Your task to perform on an android device: View the shopping cart on amazon. Add "razer huntsman" to the cart on amazon Image 0: 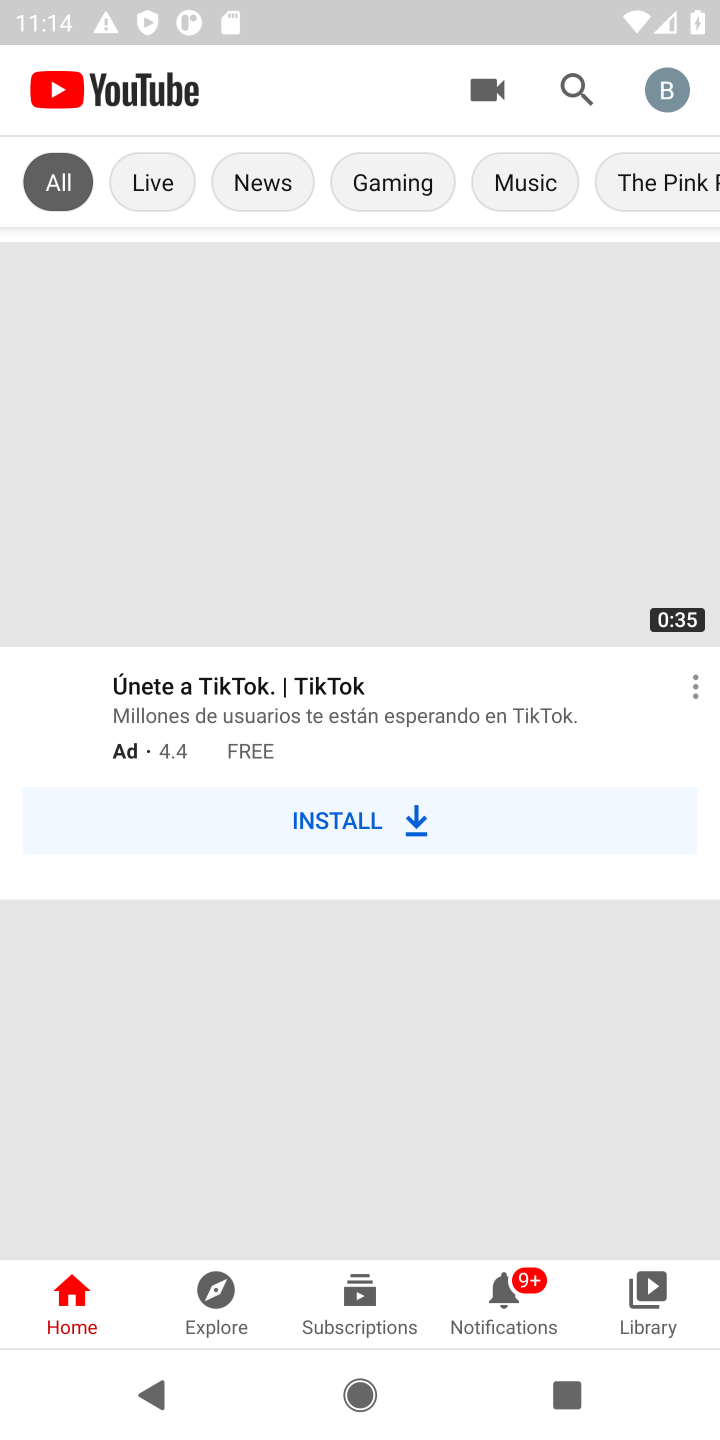
Step 0: press home button
Your task to perform on an android device: View the shopping cart on amazon. Add "razer huntsman" to the cart on amazon Image 1: 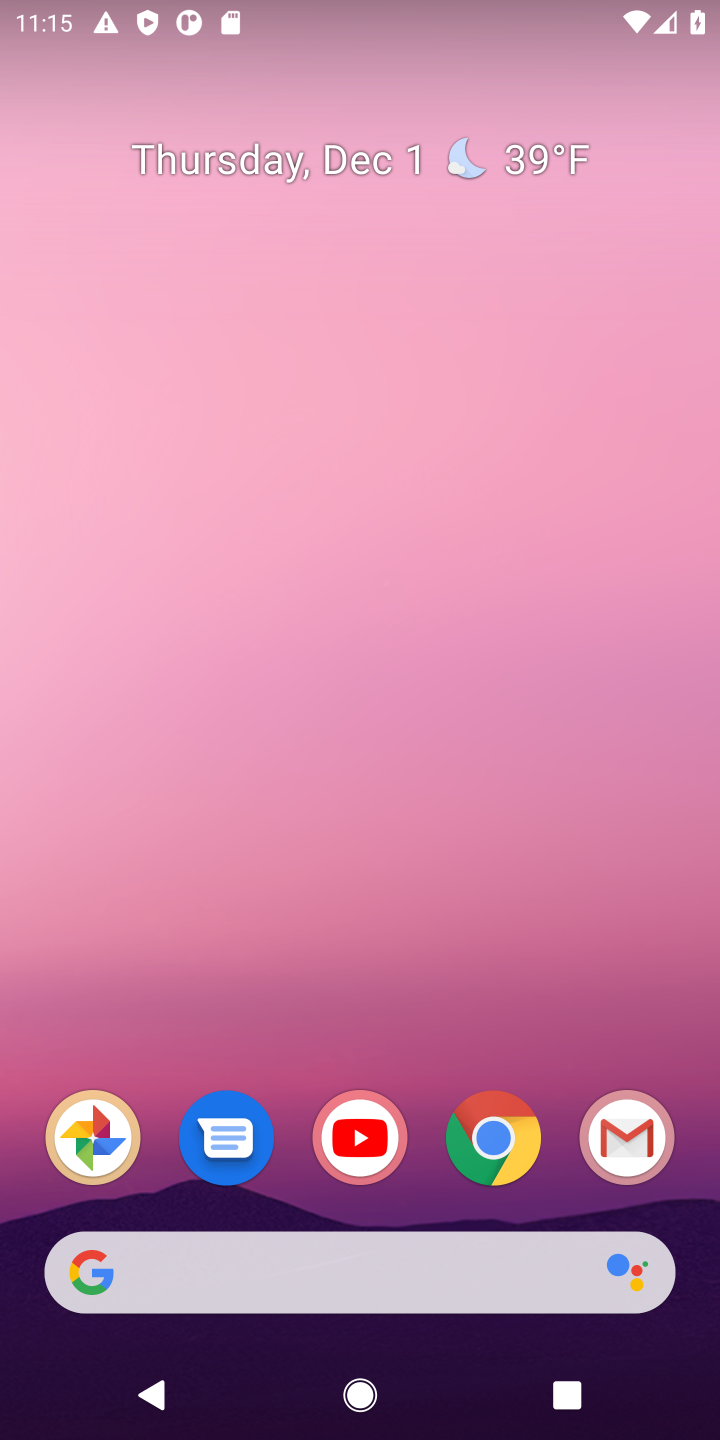
Step 1: drag from (430, 1193) to (483, 422)
Your task to perform on an android device: View the shopping cart on amazon. Add "razer huntsman" to the cart on amazon Image 2: 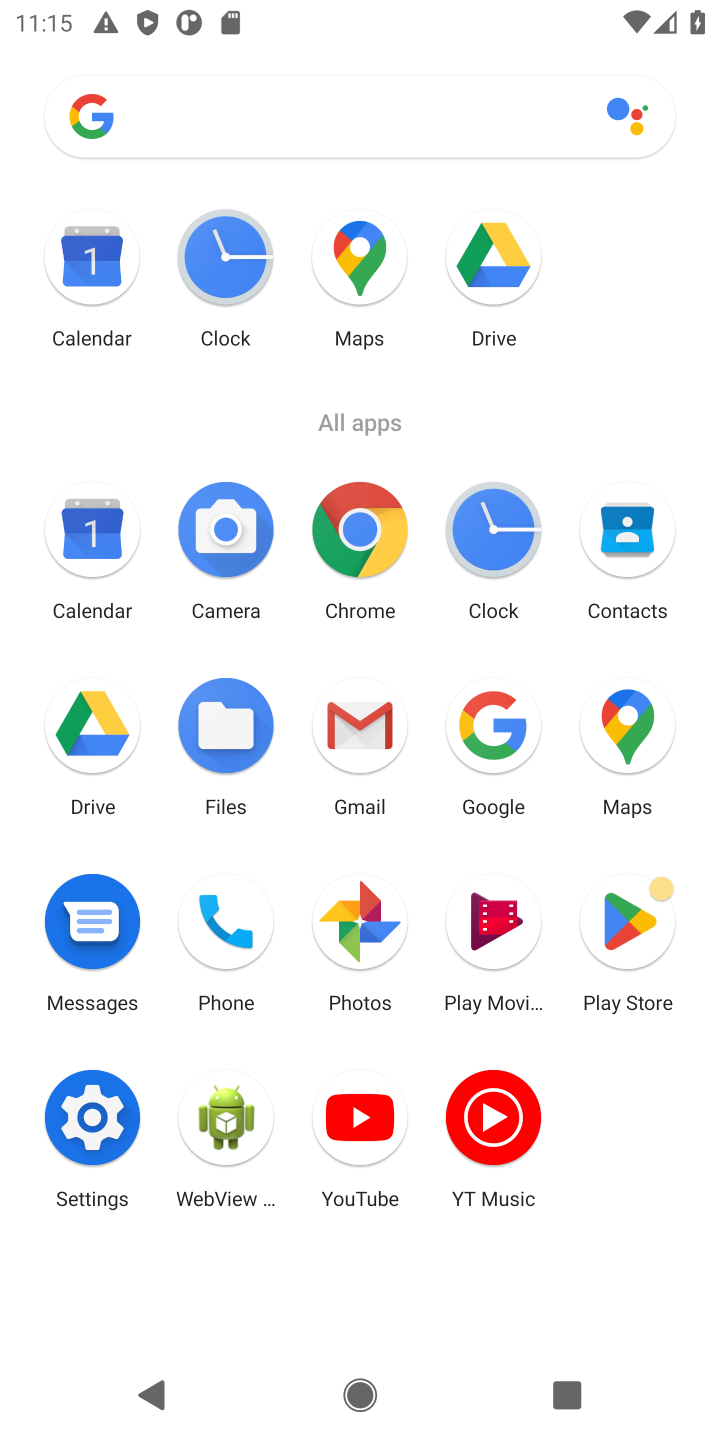
Step 2: click (503, 769)
Your task to perform on an android device: View the shopping cart on amazon. Add "razer huntsman" to the cart on amazon Image 3: 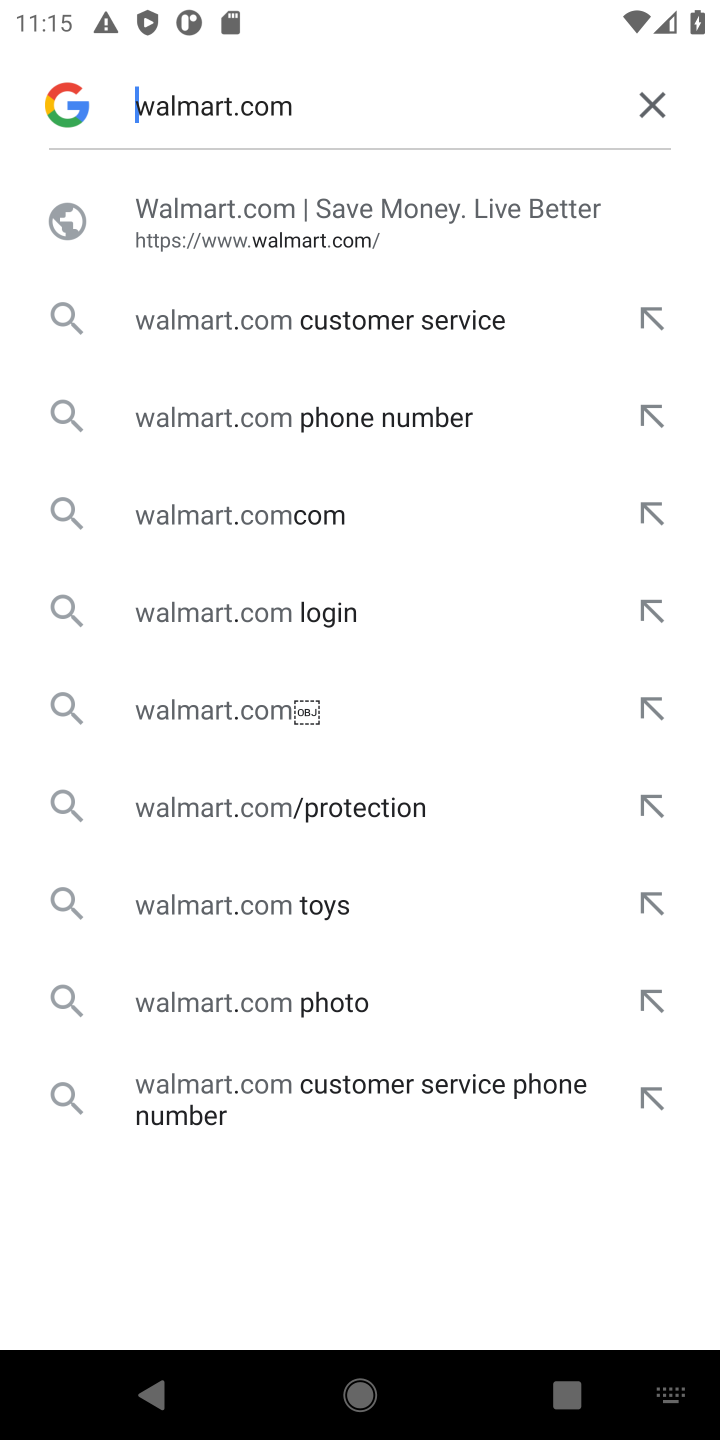
Step 3: click (655, 117)
Your task to perform on an android device: View the shopping cart on amazon. Add "razer huntsman" to the cart on amazon Image 4: 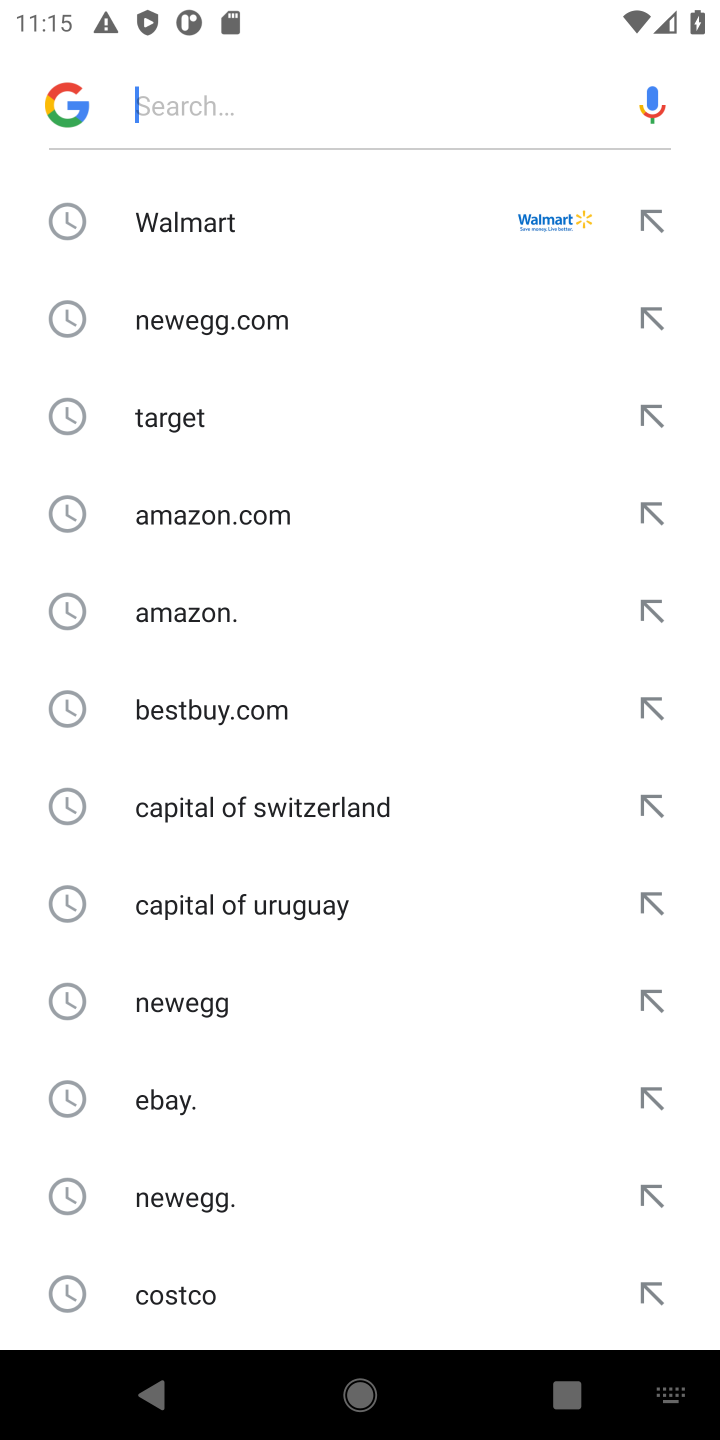
Step 4: type "amazon"
Your task to perform on an android device: View the shopping cart on amazon. Add "razer huntsman" to the cart on amazon Image 5: 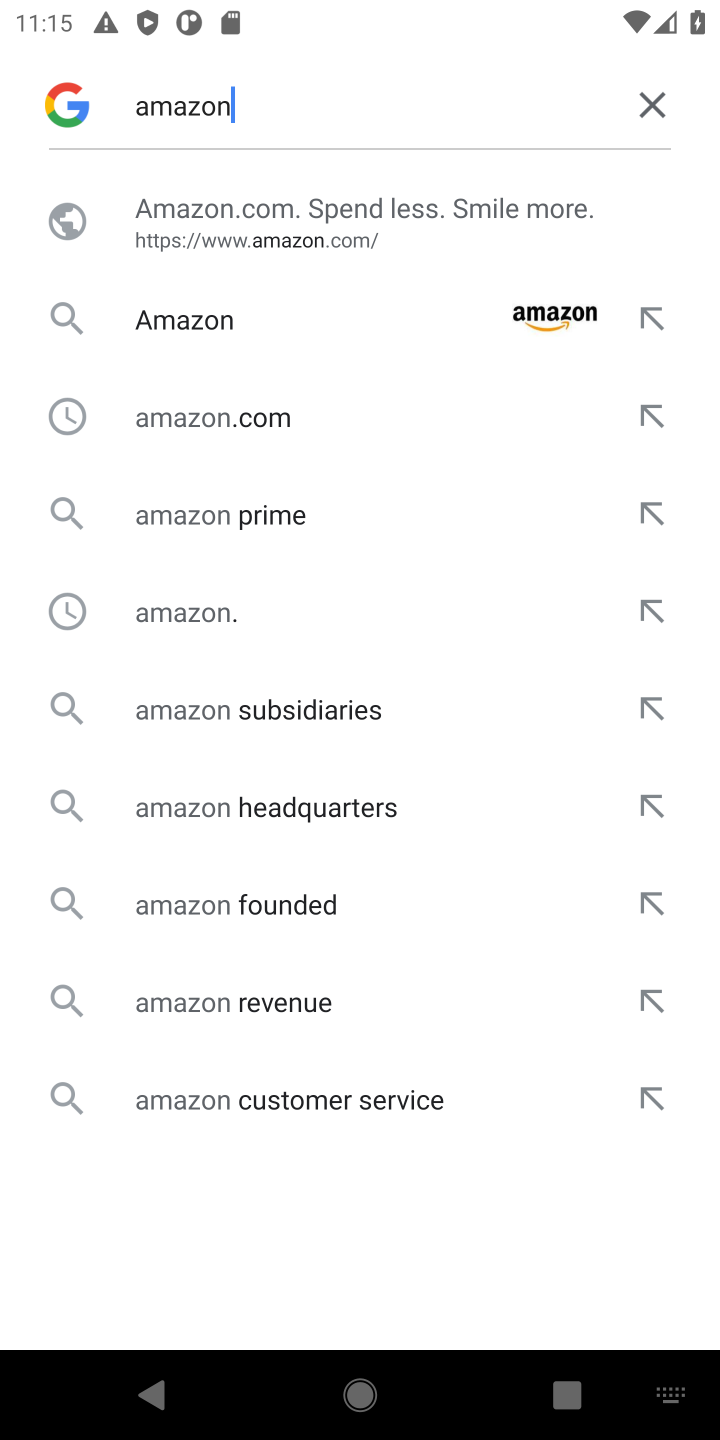
Step 5: click (202, 245)
Your task to perform on an android device: View the shopping cart on amazon. Add "razer huntsman" to the cart on amazon Image 6: 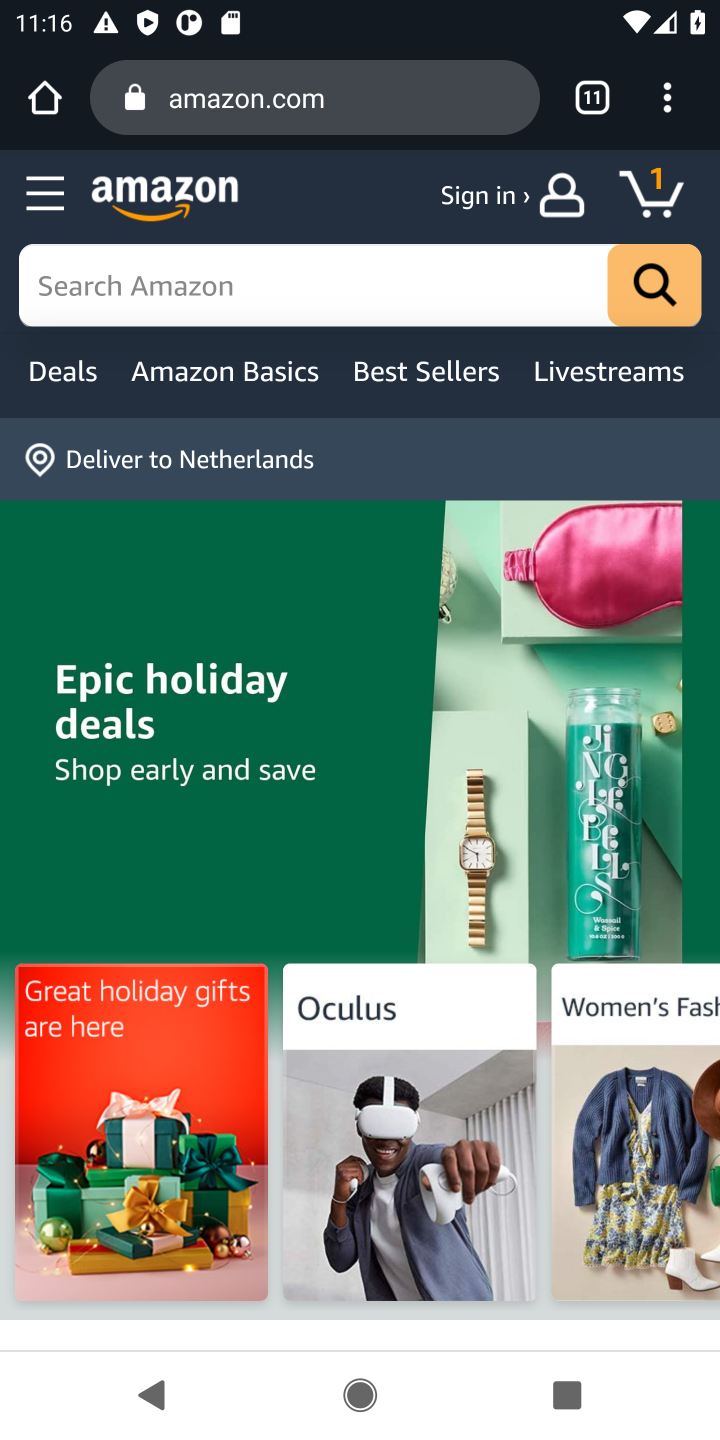
Step 6: click (262, 295)
Your task to perform on an android device: View the shopping cart on amazon. Add "razer huntsman" to the cart on amazon Image 7: 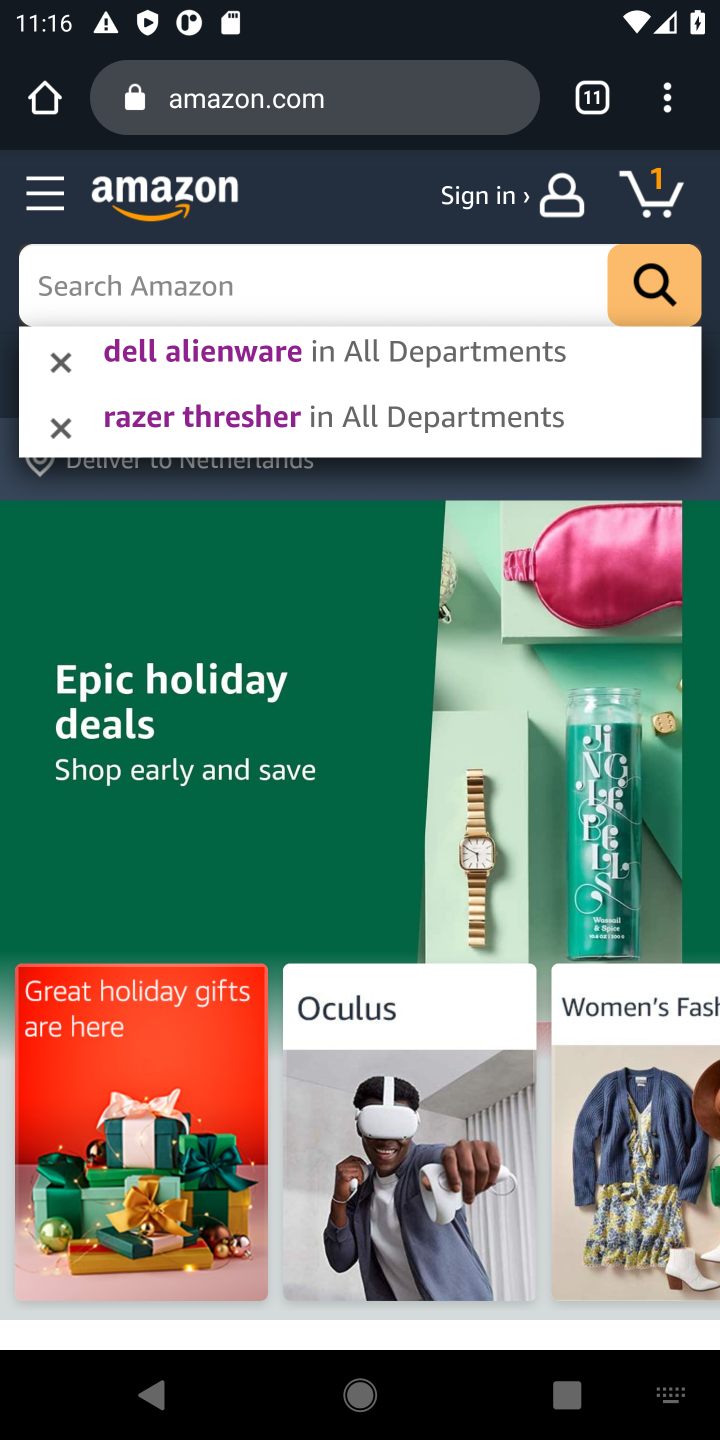
Step 7: type "razer huntsman"
Your task to perform on an android device: View the shopping cart on amazon. Add "razer huntsman" to the cart on amazon Image 8: 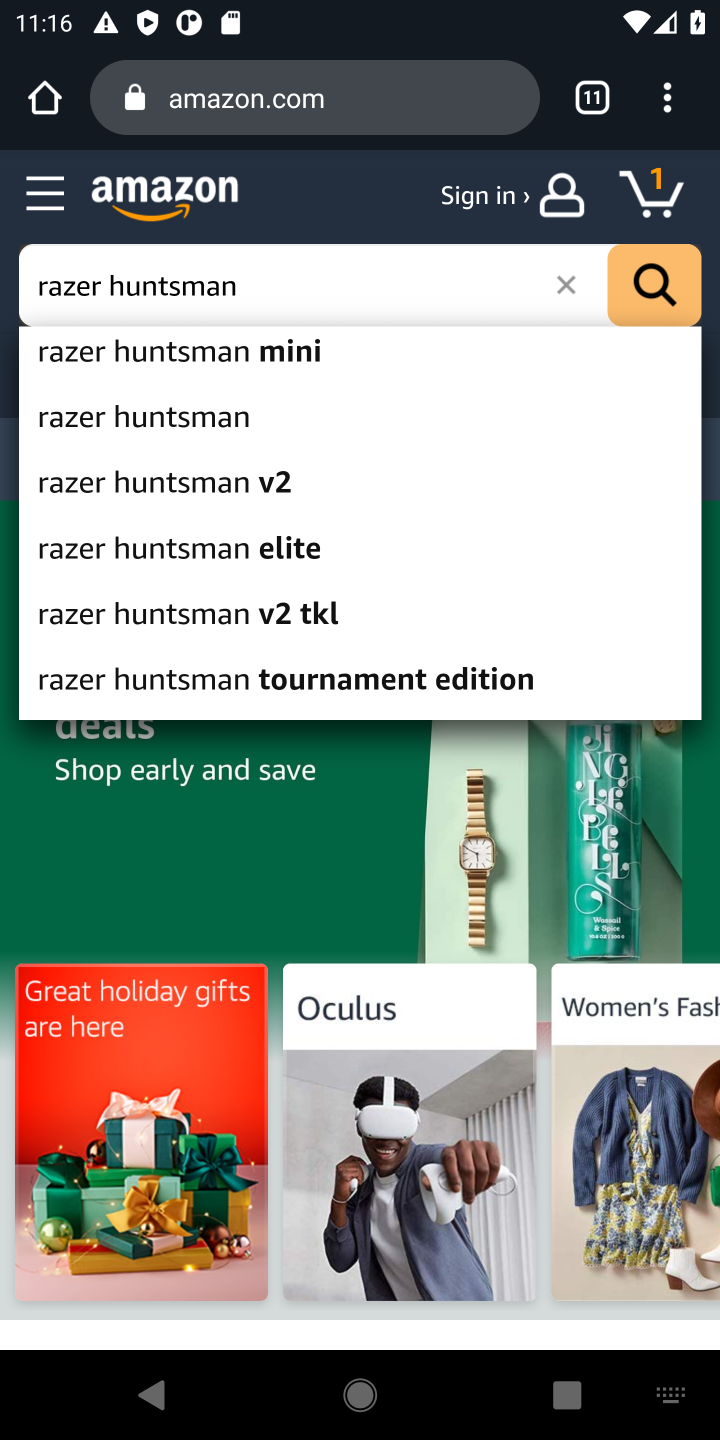
Step 8: click (224, 417)
Your task to perform on an android device: View the shopping cart on amazon. Add "razer huntsman" to the cart on amazon Image 9: 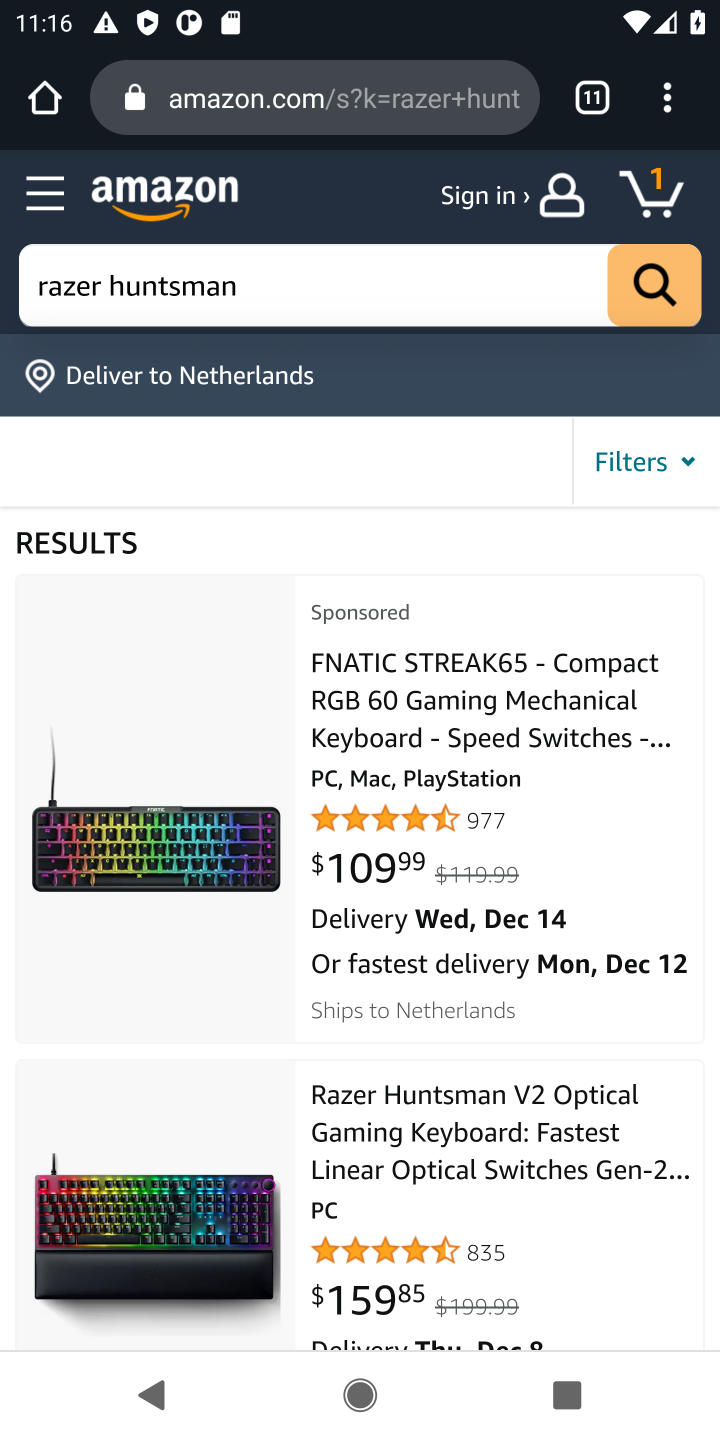
Step 9: click (427, 1186)
Your task to perform on an android device: View the shopping cart on amazon. Add "razer huntsman" to the cart on amazon Image 10: 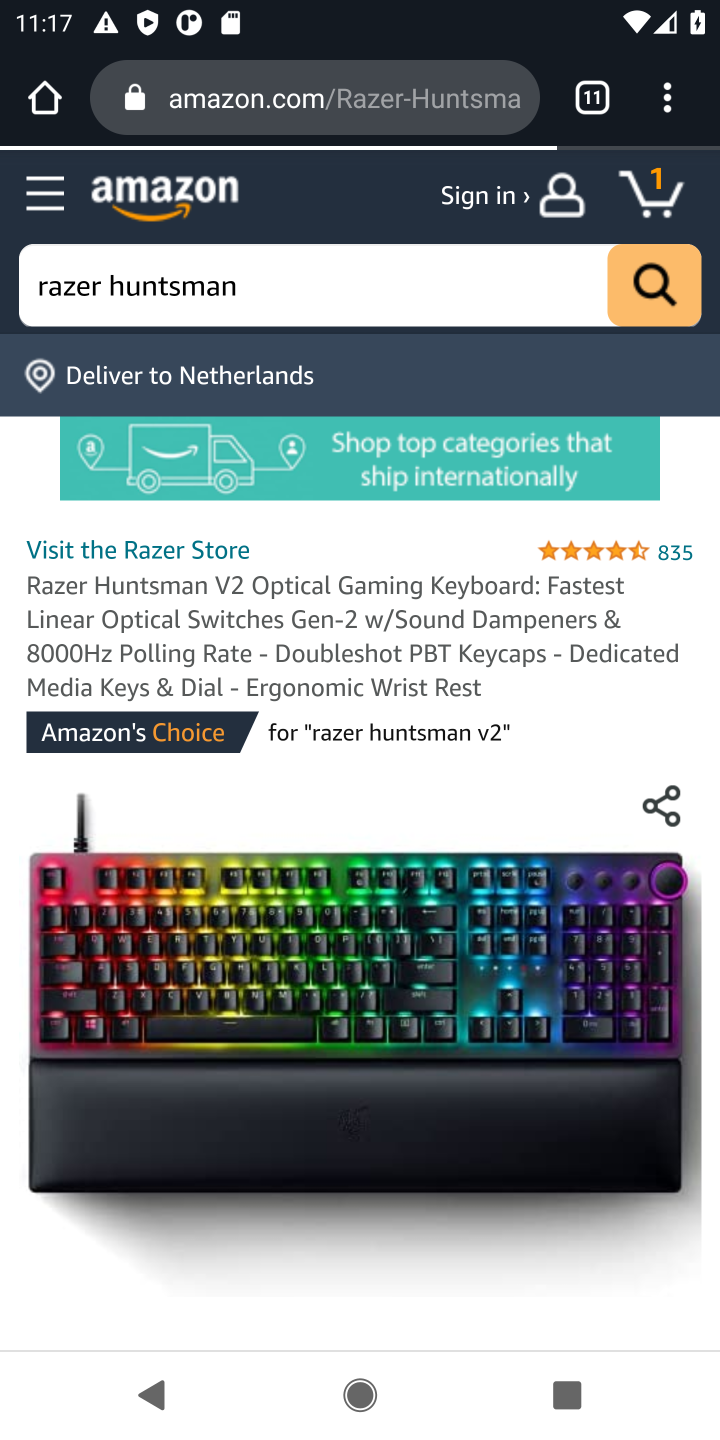
Step 10: drag from (552, 877) to (591, 691)
Your task to perform on an android device: View the shopping cart on amazon. Add "razer huntsman" to the cart on amazon Image 11: 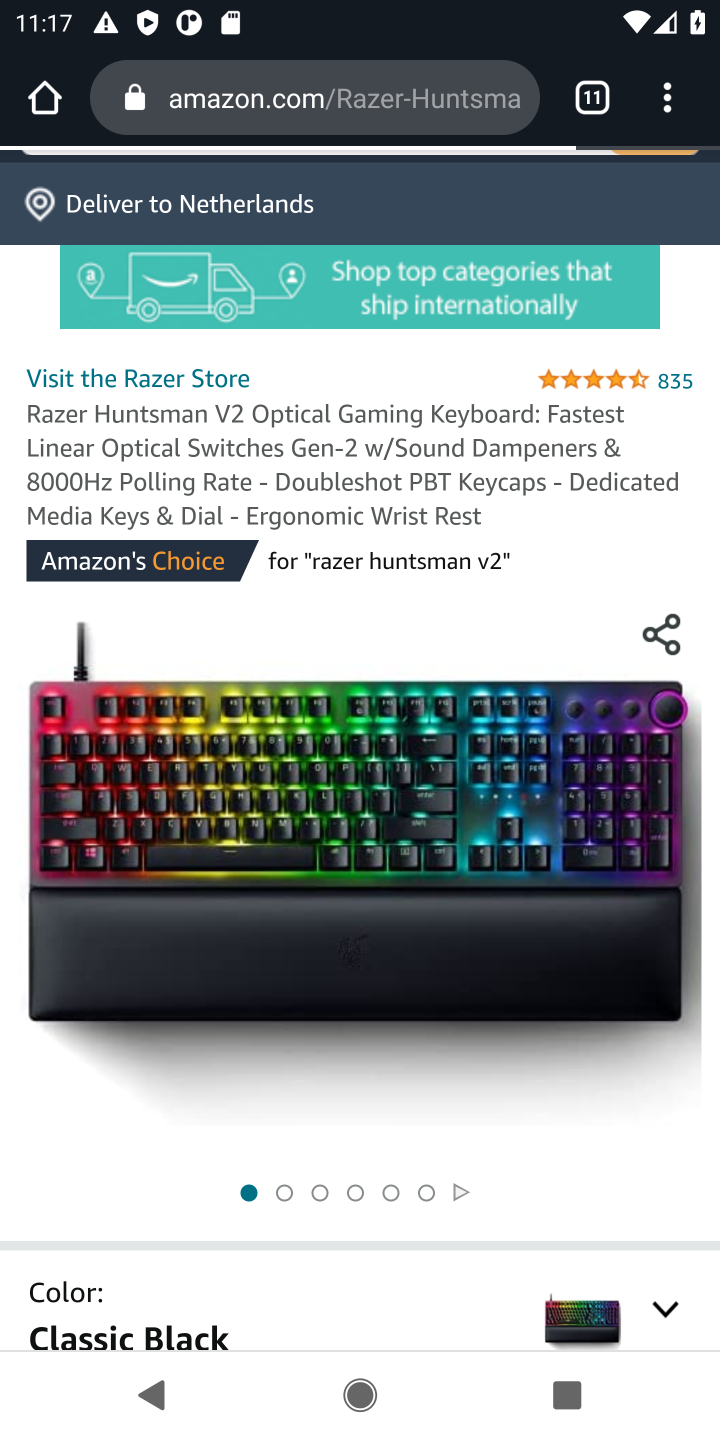
Step 11: drag from (482, 1085) to (490, 767)
Your task to perform on an android device: View the shopping cart on amazon. Add "razer huntsman" to the cart on amazon Image 12: 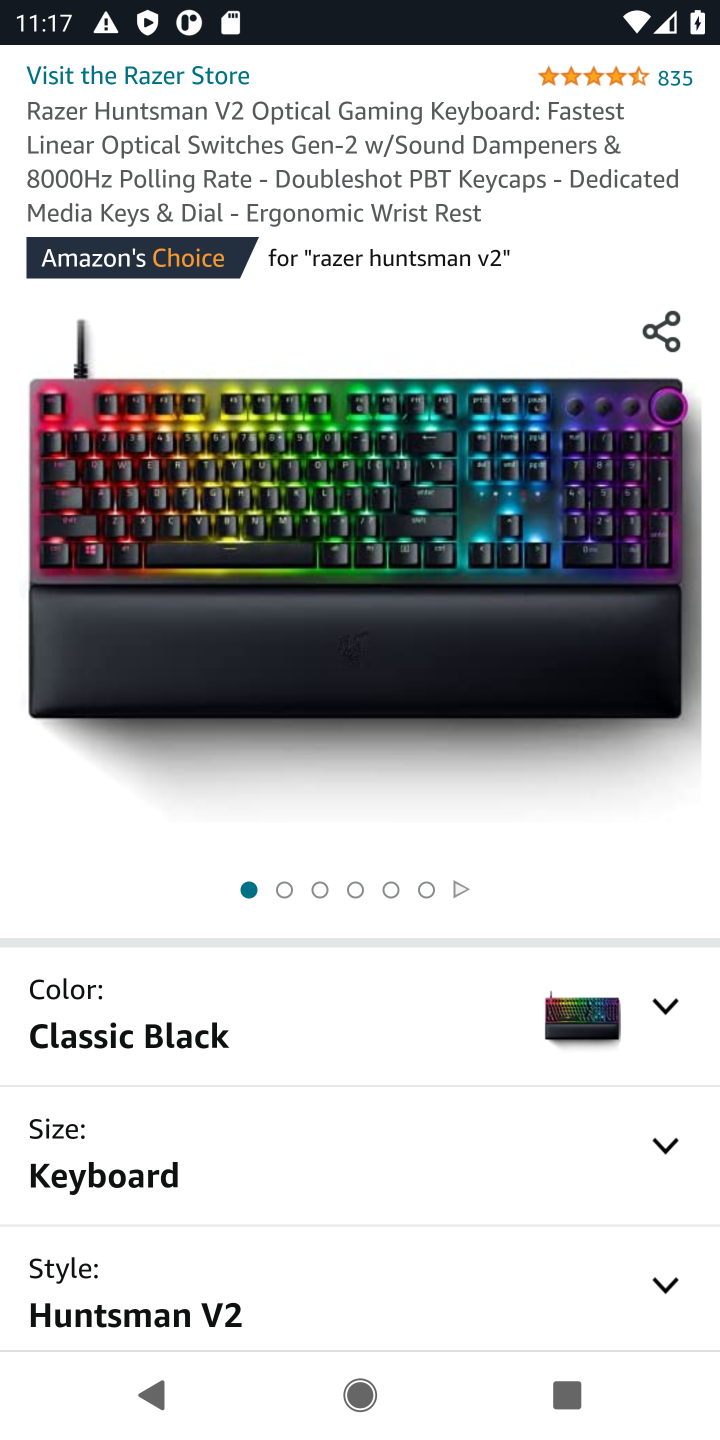
Step 12: drag from (470, 1167) to (547, 544)
Your task to perform on an android device: View the shopping cart on amazon. Add "razer huntsman" to the cart on amazon Image 13: 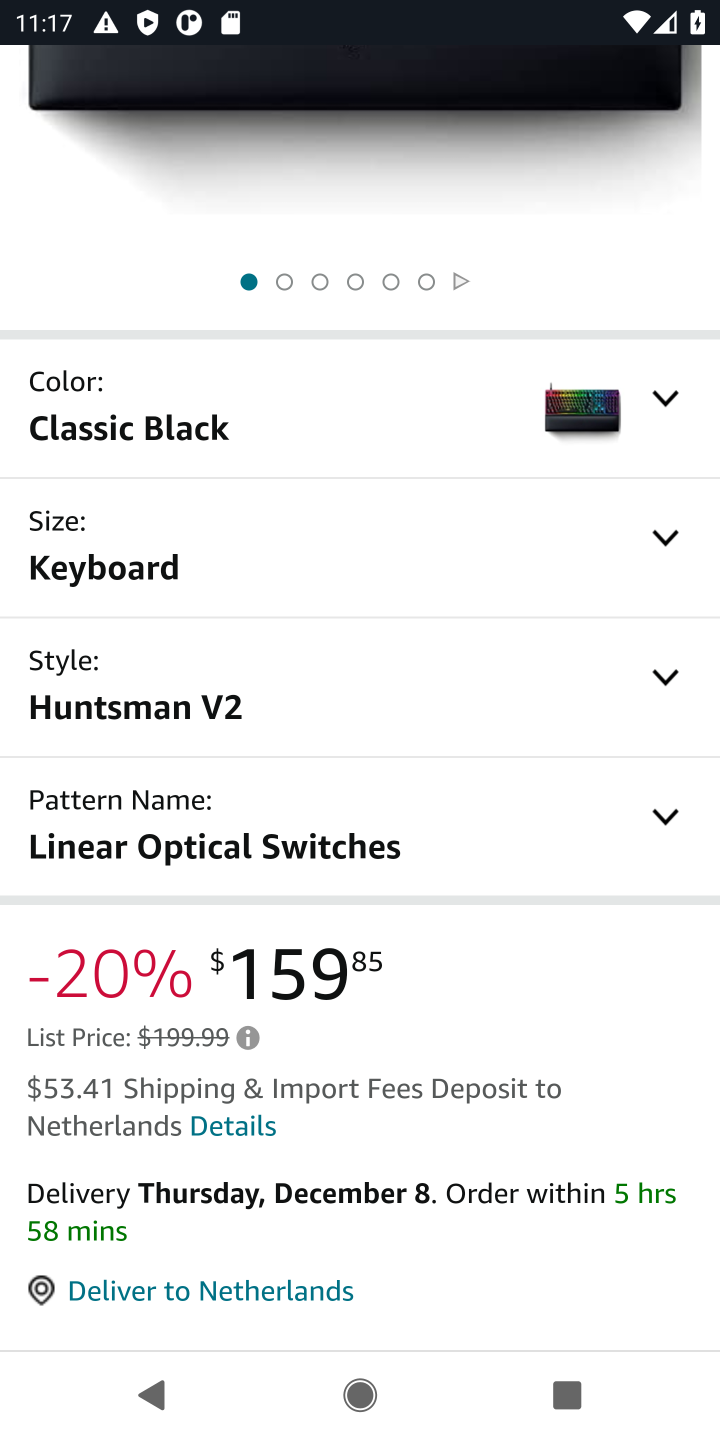
Step 13: drag from (502, 1211) to (548, 580)
Your task to perform on an android device: View the shopping cart on amazon. Add "razer huntsman" to the cart on amazon Image 14: 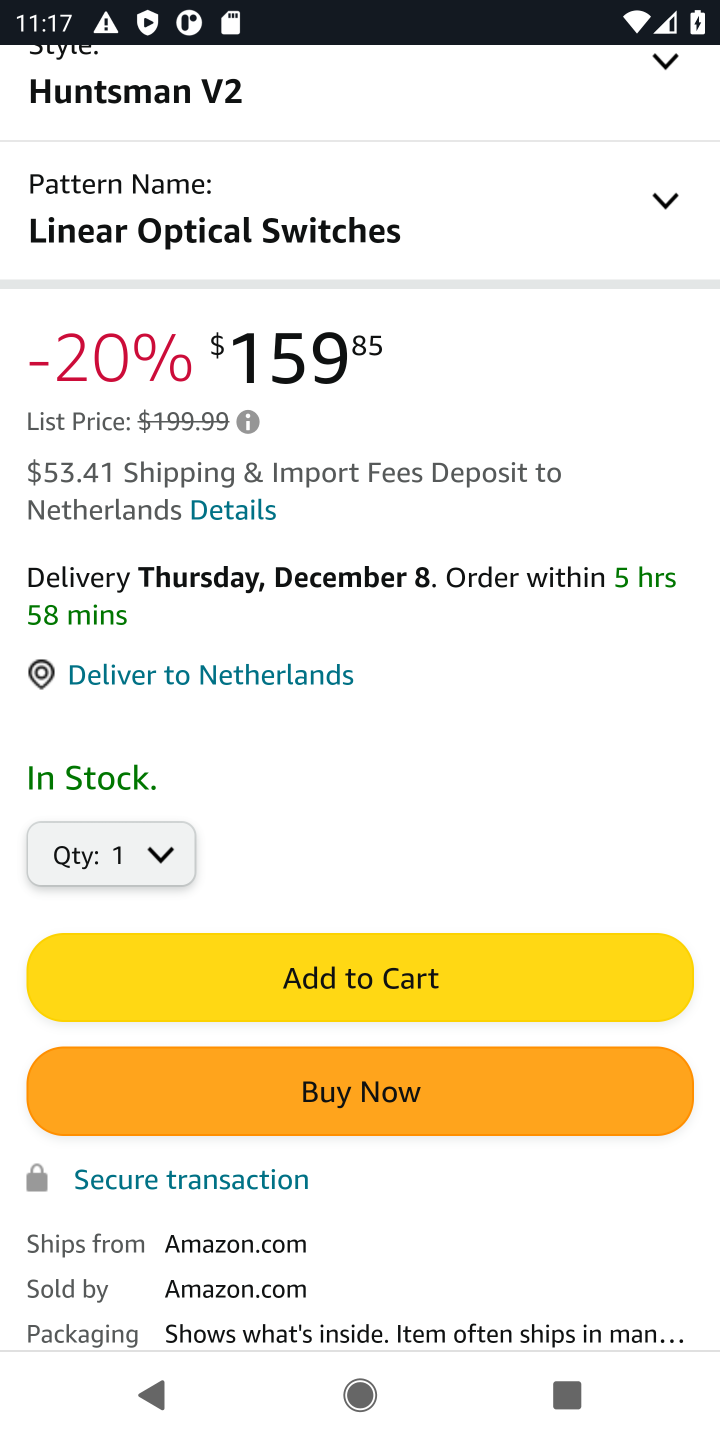
Step 14: click (473, 985)
Your task to perform on an android device: View the shopping cart on amazon. Add "razer huntsman" to the cart on amazon Image 15: 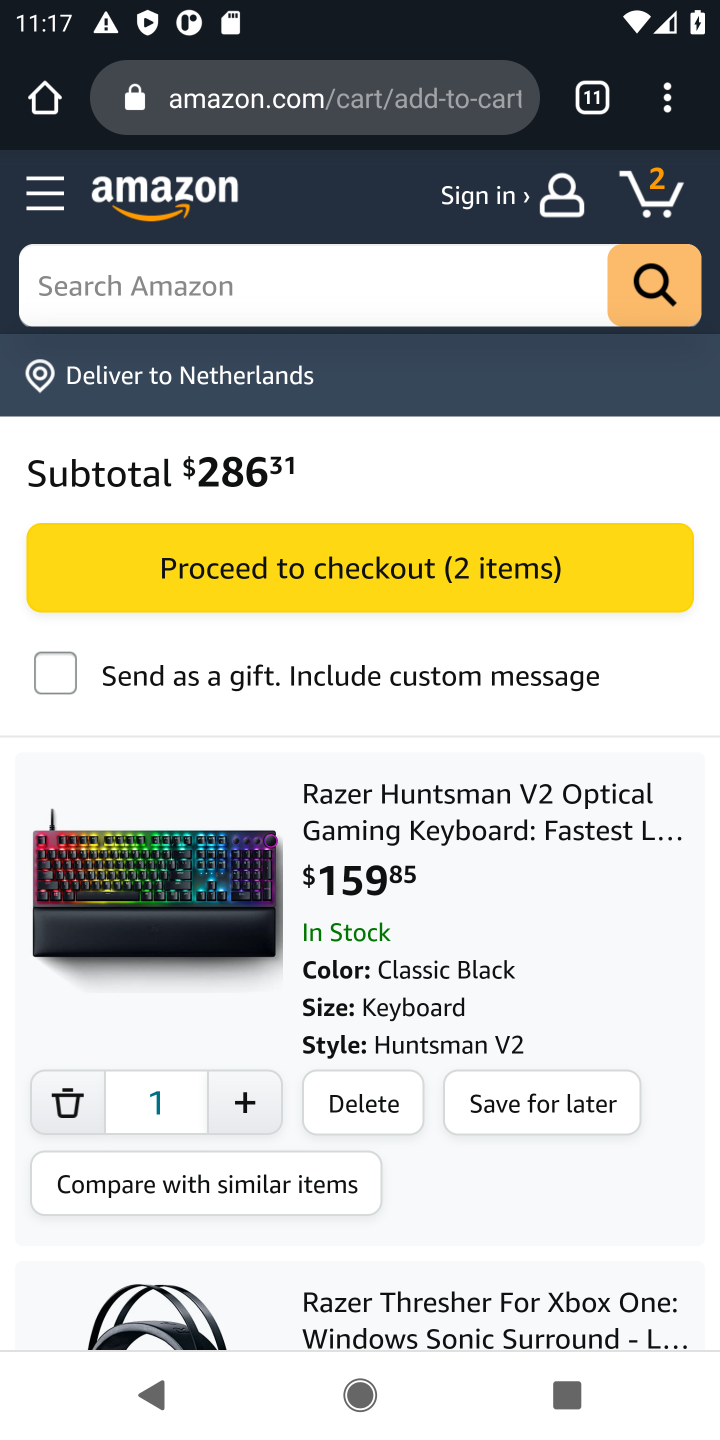
Step 15: task complete